Your task to perform on an android device: Search for the best rated circular saw on Lowes.com Image 0: 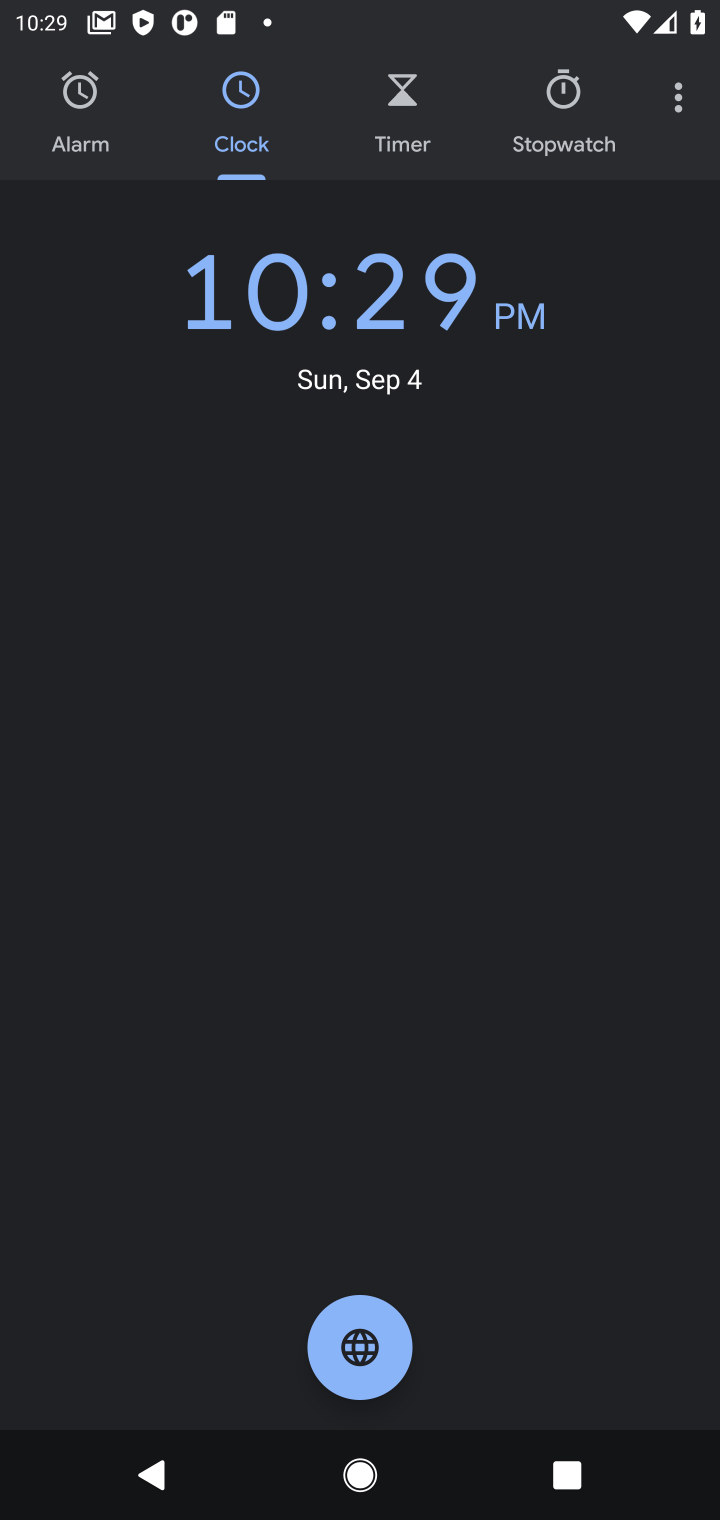
Step 0: press home button
Your task to perform on an android device: Search for the best rated circular saw on Lowes.com Image 1: 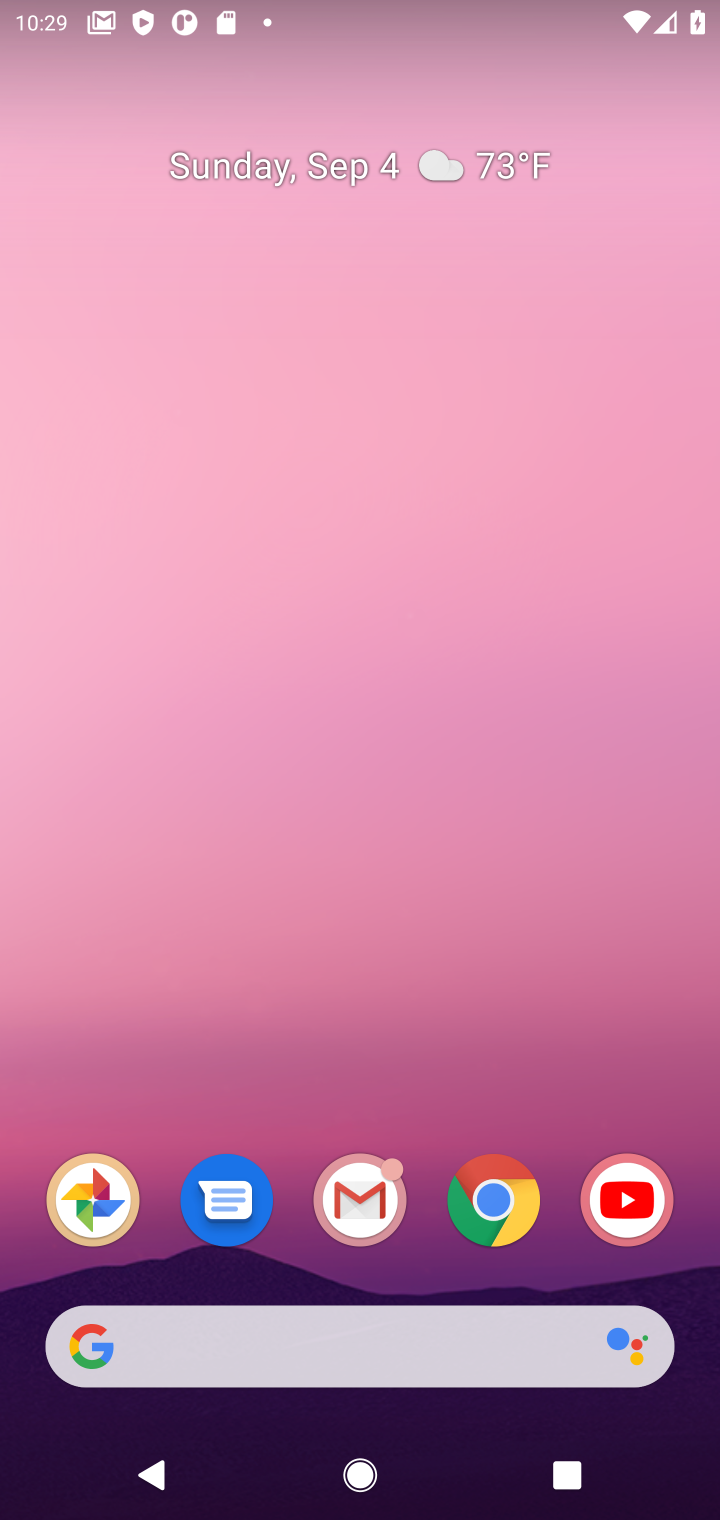
Step 1: click (498, 1227)
Your task to perform on an android device: Search for the best rated circular saw on Lowes.com Image 2: 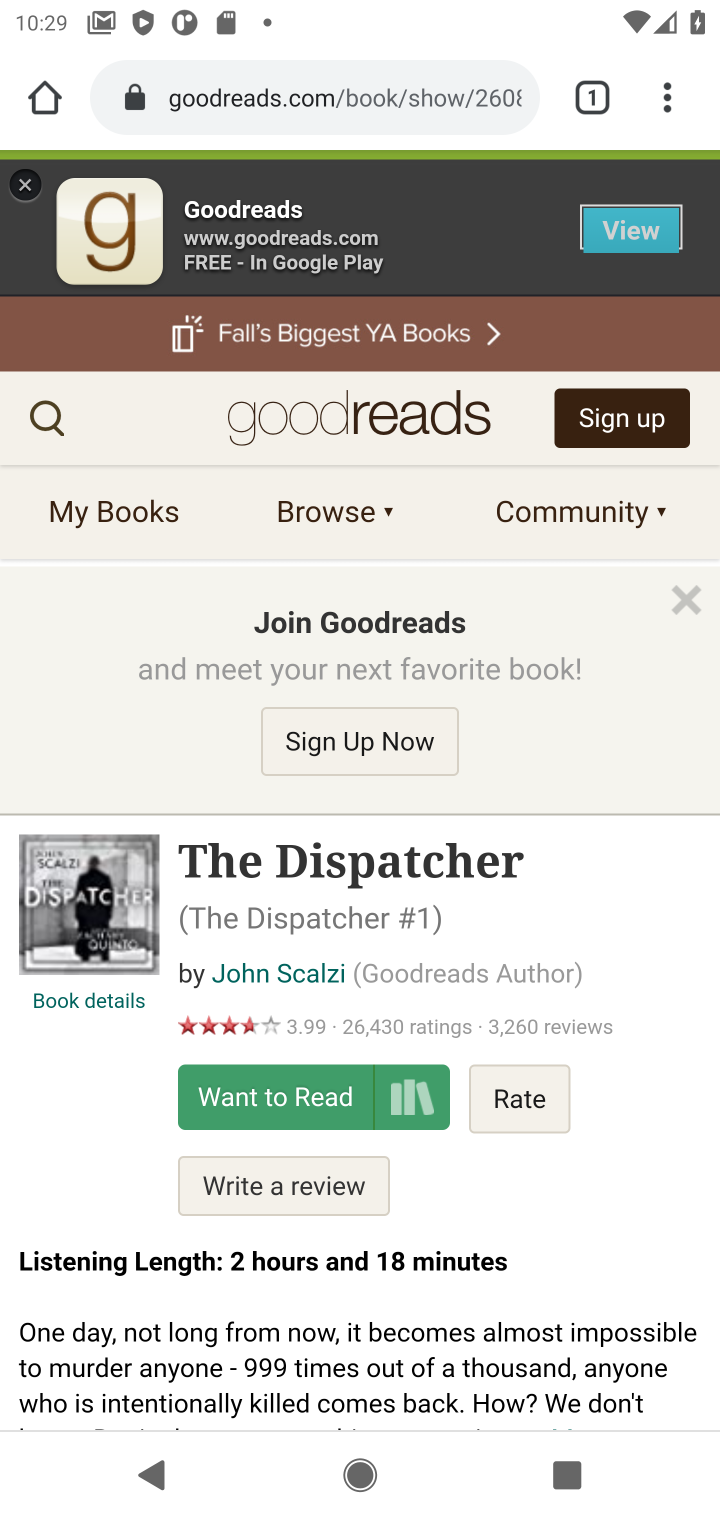
Step 2: click (442, 85)
Your task to perform on an android device: Search for the best rated circular saw on Lowes.com Image 3: 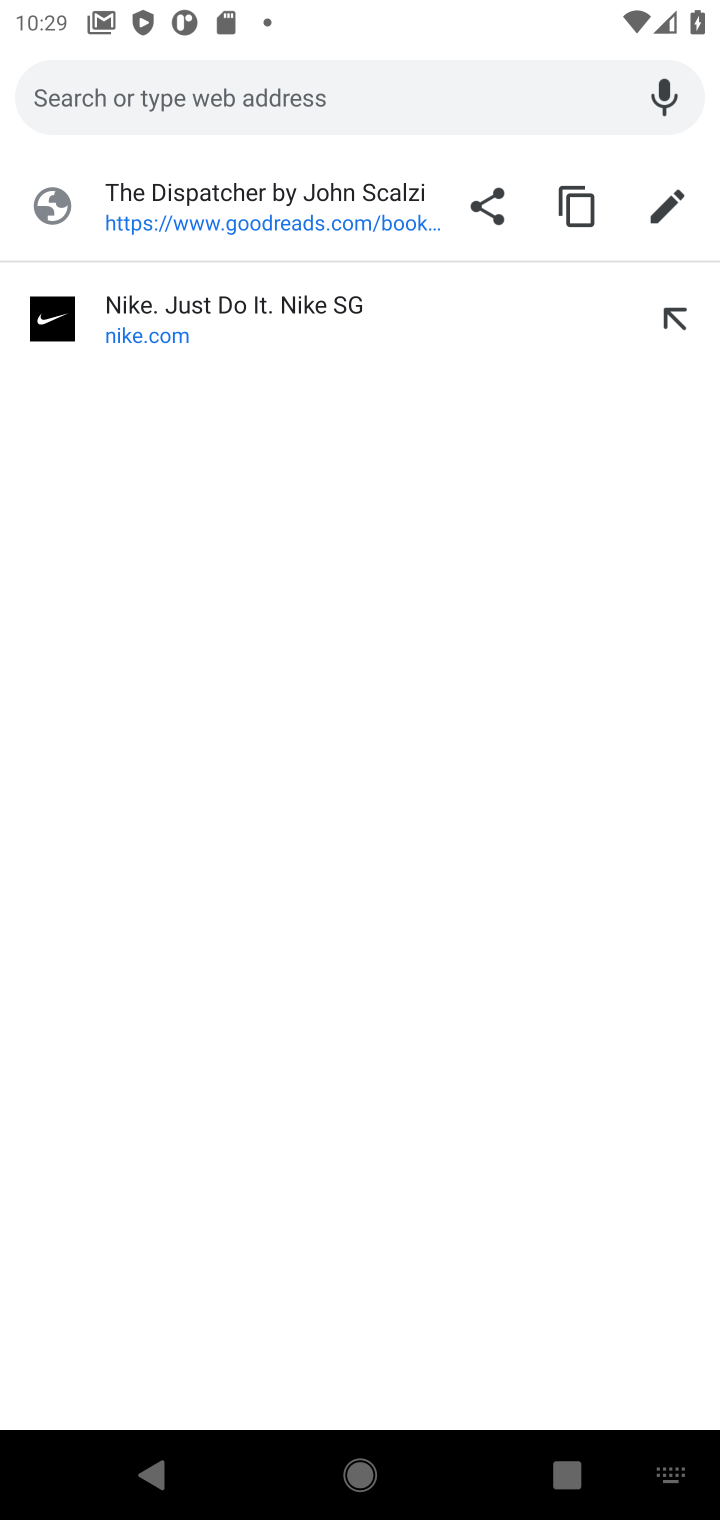
Step 3: type "Lowes.com"
Your task to perform on an android device: Search for the best rated circular saw on Lowes.com Image 4: 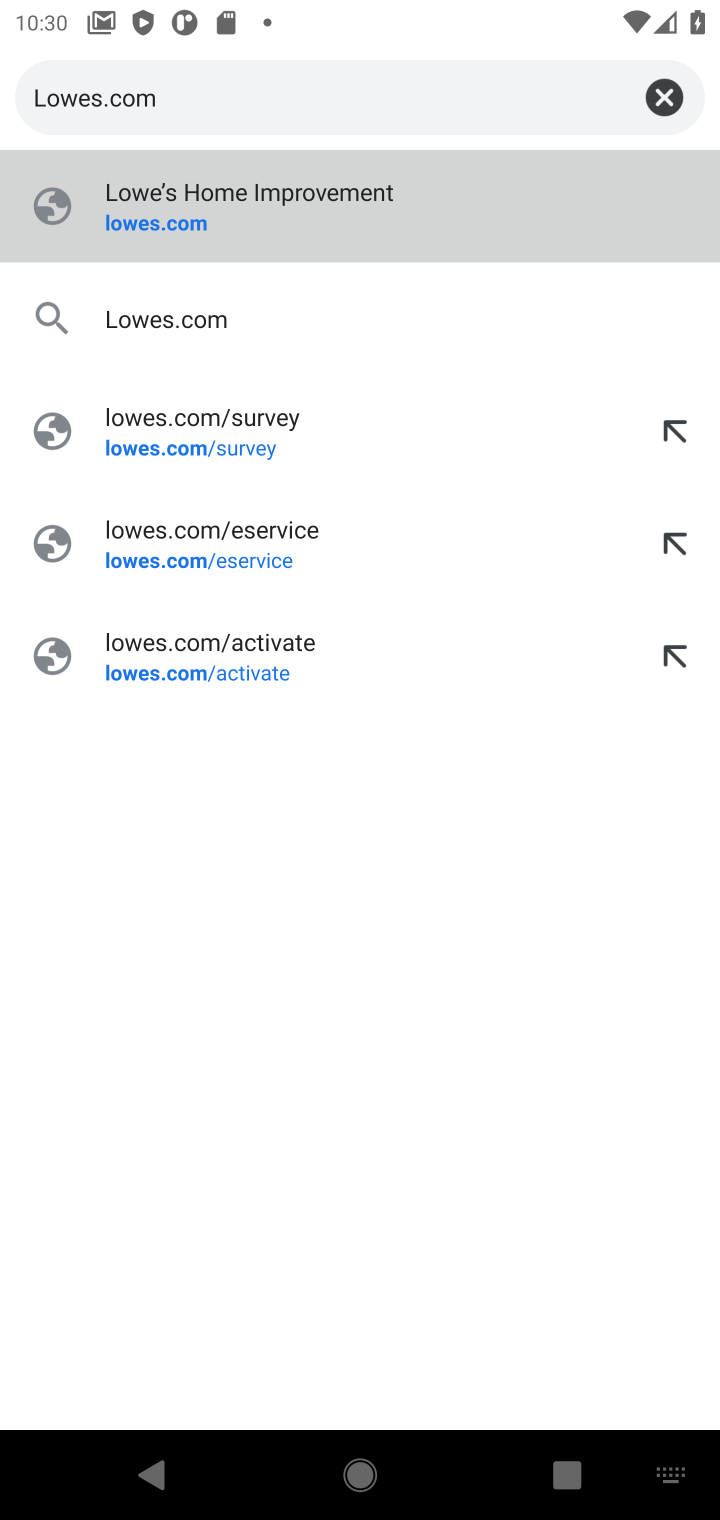
Step 4: click (264, 206)
Your task to perform on an android device: Search for the best rated circular saw on Lowes.com Image 5: 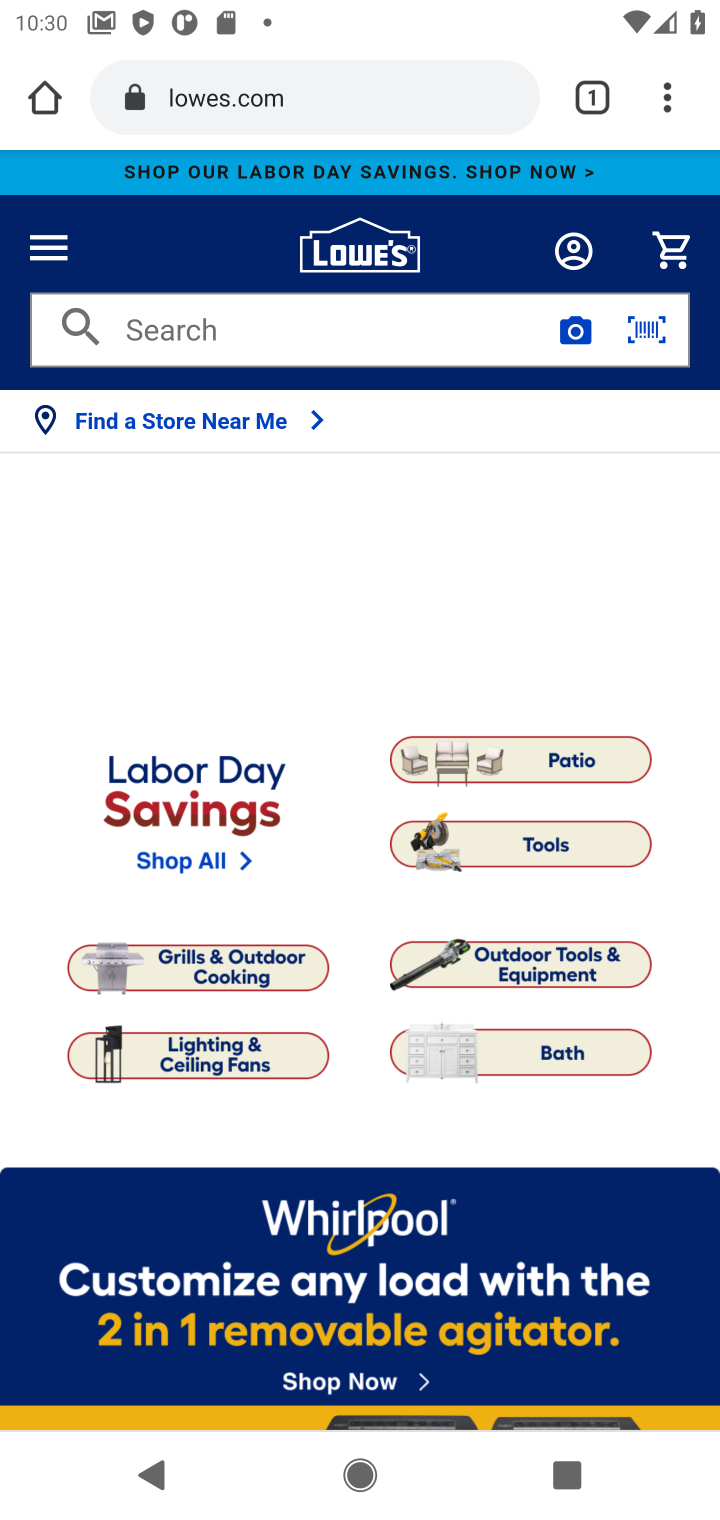
Step 5: click (450, 333)
Your task to perform on an android device: Search for the best rated circular saw on Lowes.com Image 6: 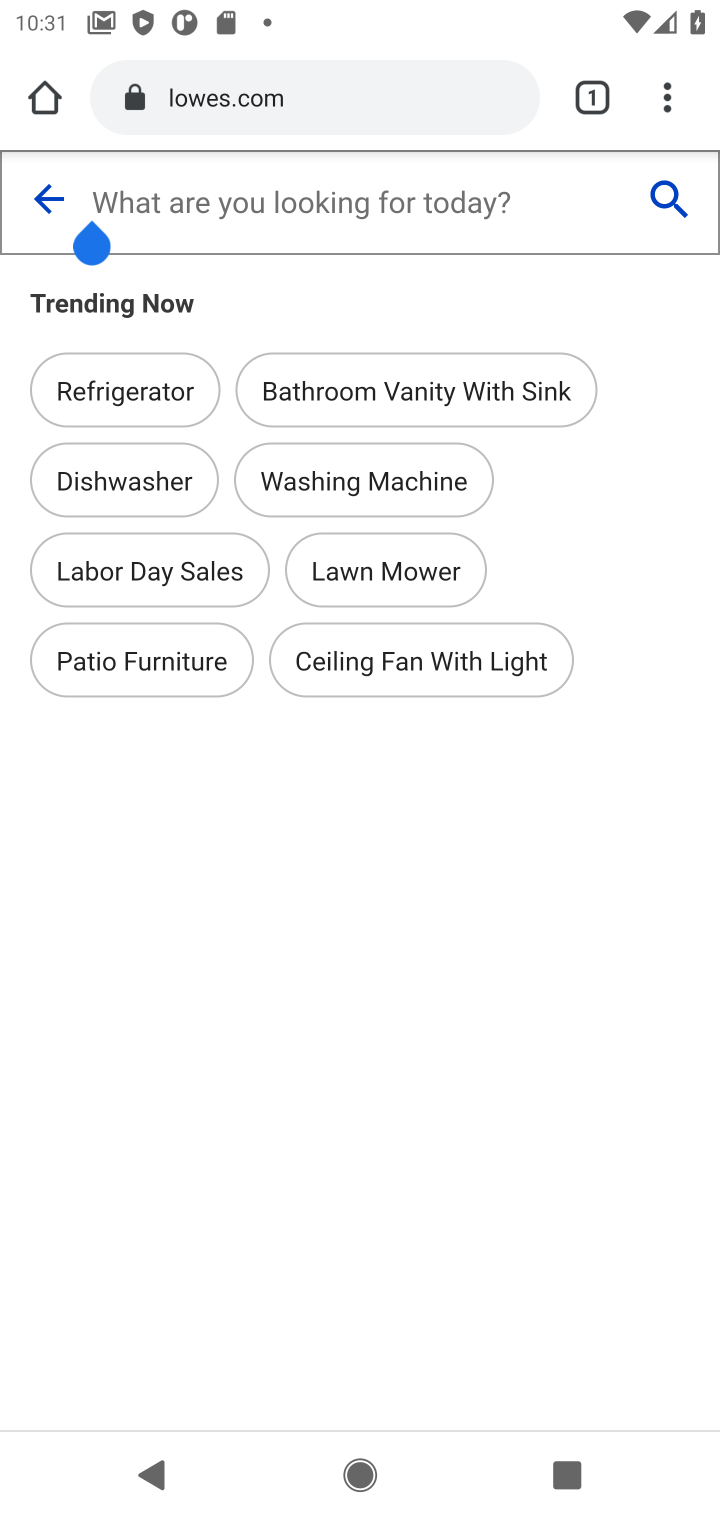
Step 6: type "best rated circular saw"
Your task to perform on an android device: Search for the best rated circular saw on Lowes.com Image 7: 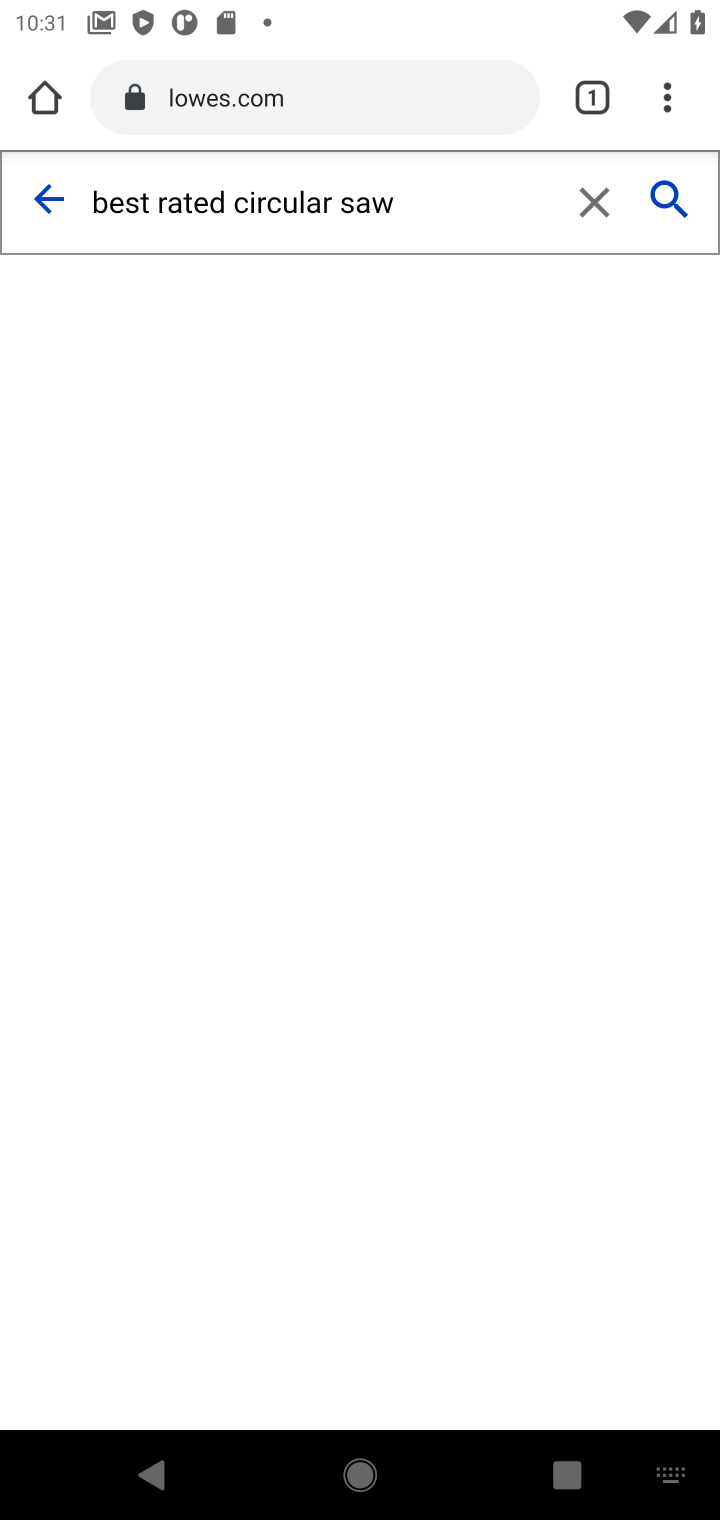
Step 7: click (674, 198)
Your task to perform on an android device: Search for the best rated circular saw on Lowes.com Image 8: 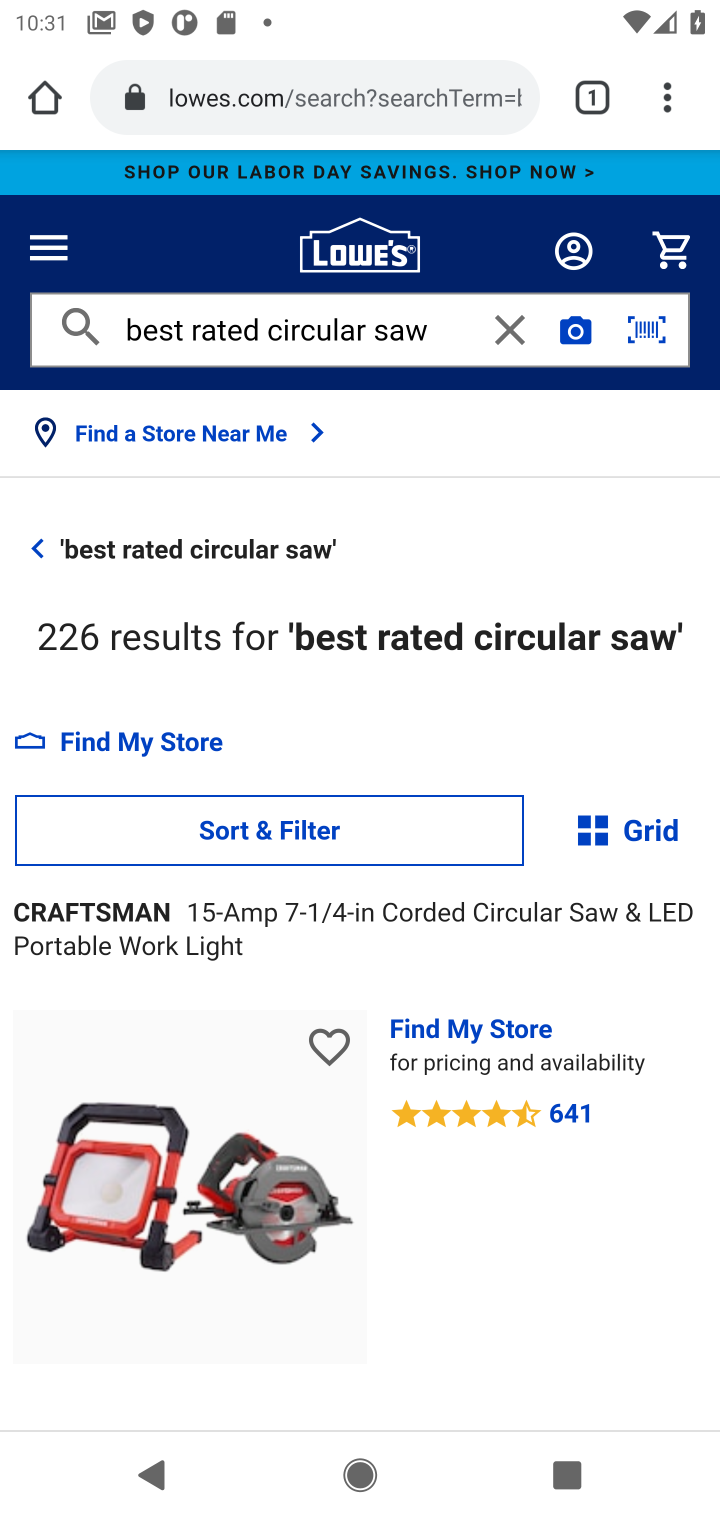
Step 8: task complete